Your task to perform on an android device: Go to wifi settings Image 0: 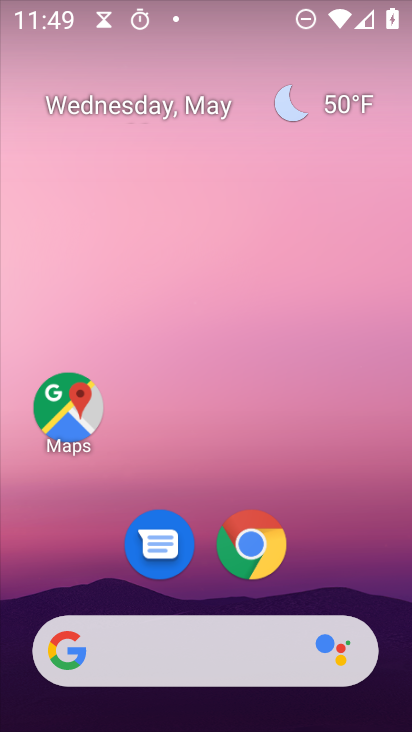
Step 0: drag from (200, 10) to (217, 607)
Your task to perform on an android device: Go to wifi settings Image 1: 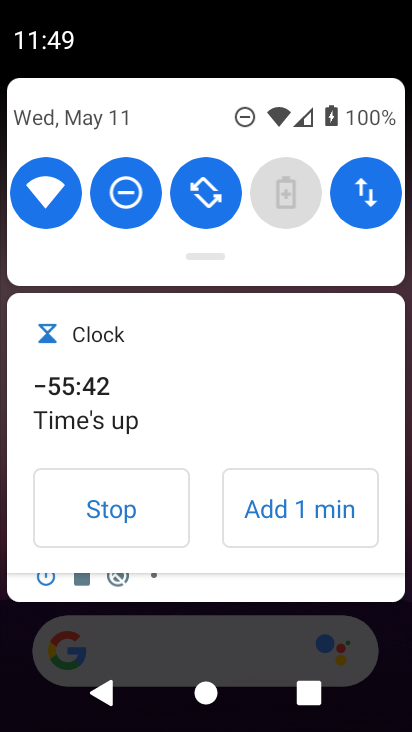
Step 1: click (64, 189)
Your task to perform on an android device: Go to wifi settings Image 2: 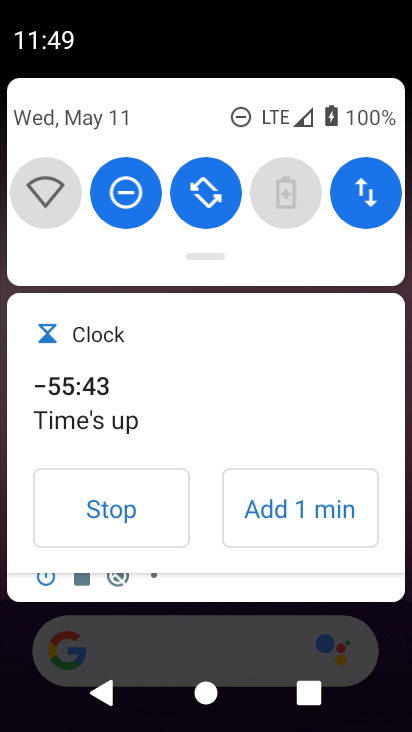
Step 2: click (64, 189)
Your task to perform on an android device: Go to wifi settings Image 3: 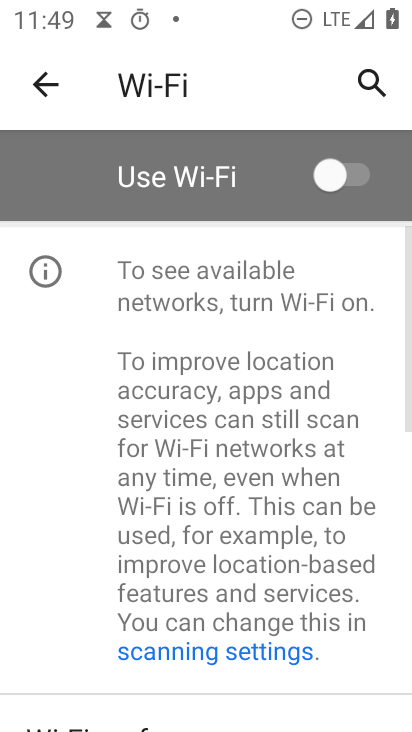
Step 3: click (353, 173)
Your task to perform on an android device: Go to wifi settings Image 4: 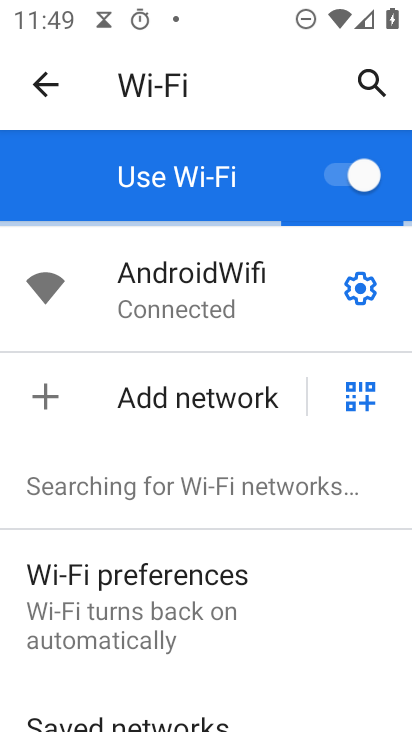
Step 4: task complete